Your task to perform on an android device: Open Google Chrome and open the bookmarks view Image 0: 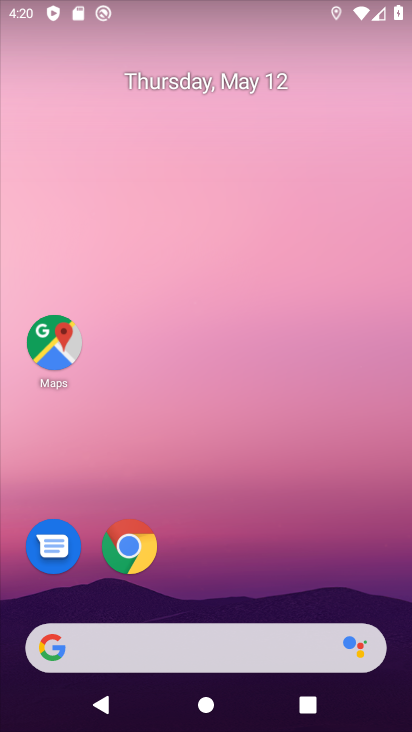
Step 0: drag from (215, 546) to (233, 54)
Your task to perform on an android device: Open Google Chrome and open the bookmarks view Image 1: 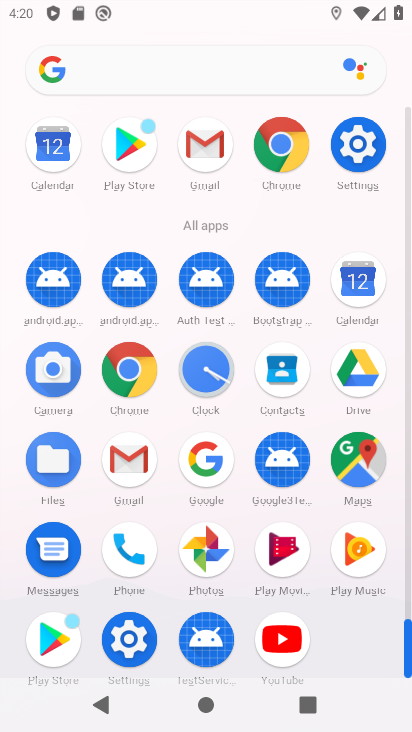
Step 1: click (127, 367)
Your task to perform on an android device: Open Google Chrome and open the bookmarks view Image 2: 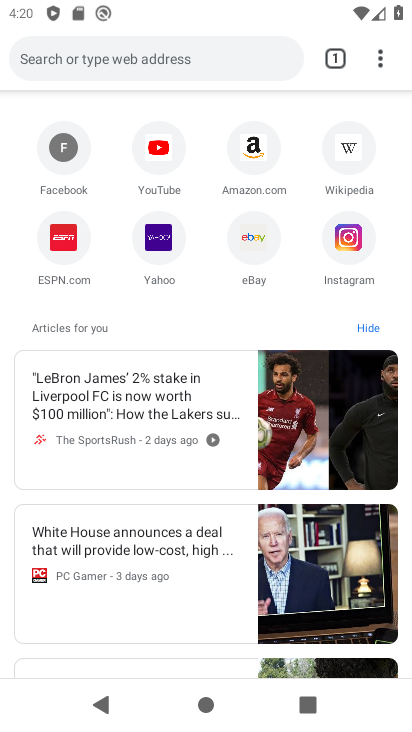
Step 2: task complete